Your task to perform on an android device: change the clock display to show seconds Image 0: 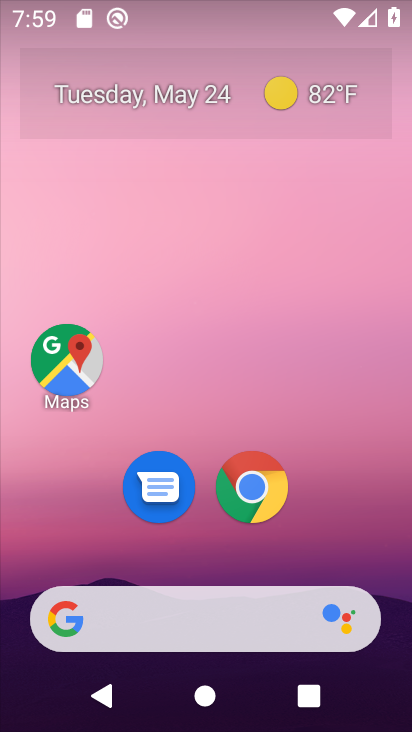
Step 0: drag from (333, 537) to (384, 180)
Your task to perform on an android device: change the clock display to show seconds Image 1: 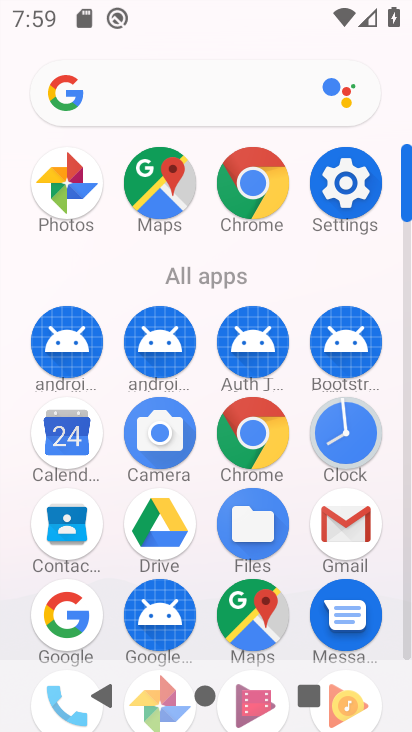
Step 1: click (347, 447)
Your task to perform on an android device: change the clock display to show seconds Image 2: 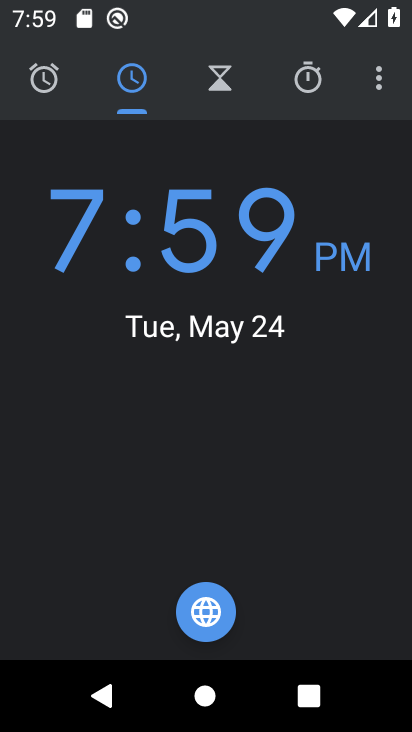
Step 2: click (388, 75)
Your task to perform on an android device: change the clock display to show seconds Image 3: 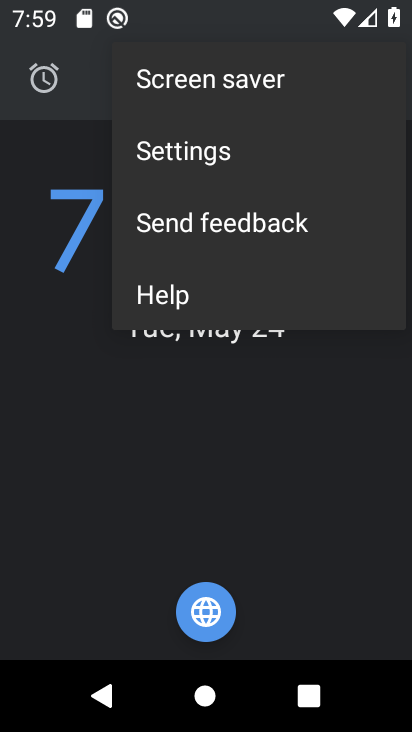
Step 3: click (204, 149)
Your task to perform on an android device: change the clock display to show seconds Image 4: 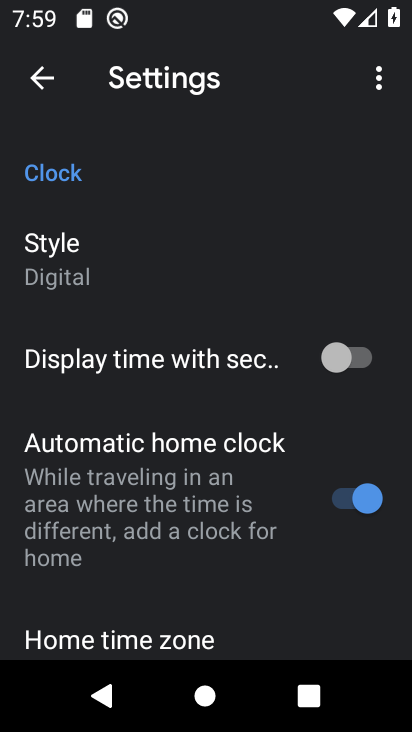
Step 4: click (360, 359)
Your task to perform on an android device: change the clock display to show seconds Image 5: 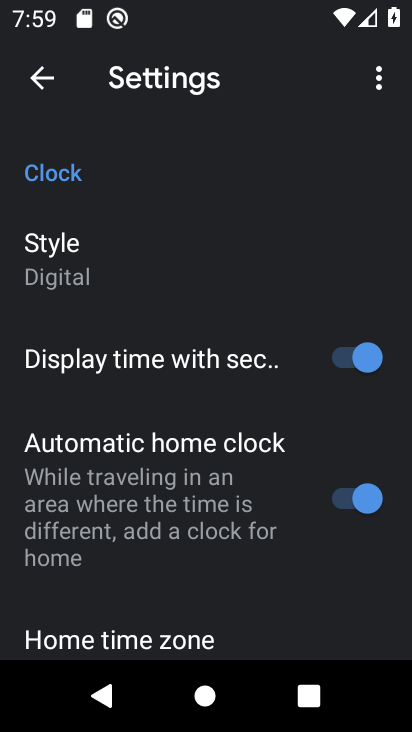
Step 5: task complete